Your task to perform on an android device: Go to Google Image 0: 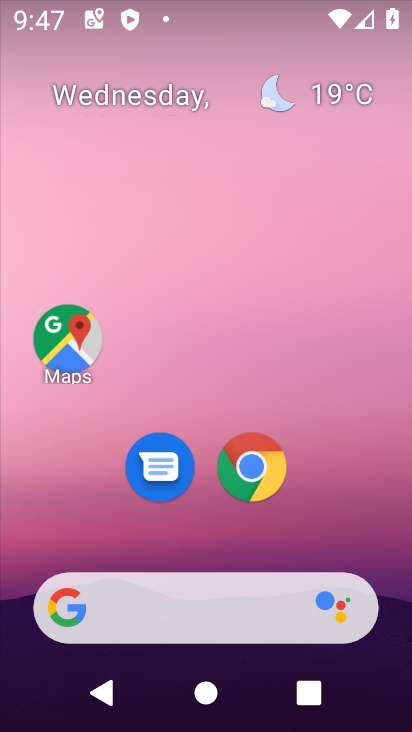
Step 0: drag from (355, 538) to (234, 30)
Your task to perform on an android device: Go to Google Image 1: 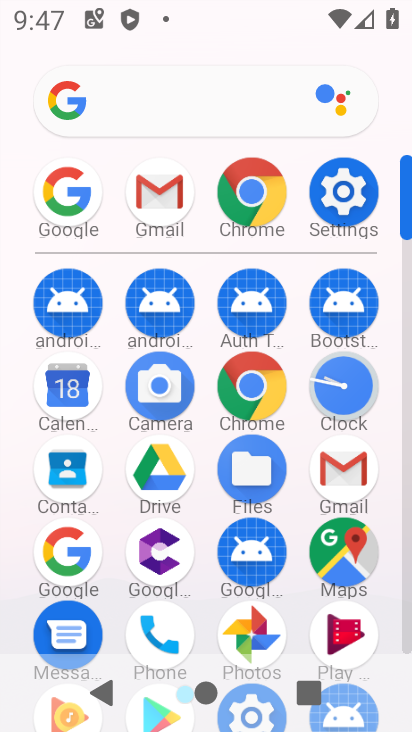
Step 1: click (75, 555)
Your task to perform on an android device: Go to Google Image 2: 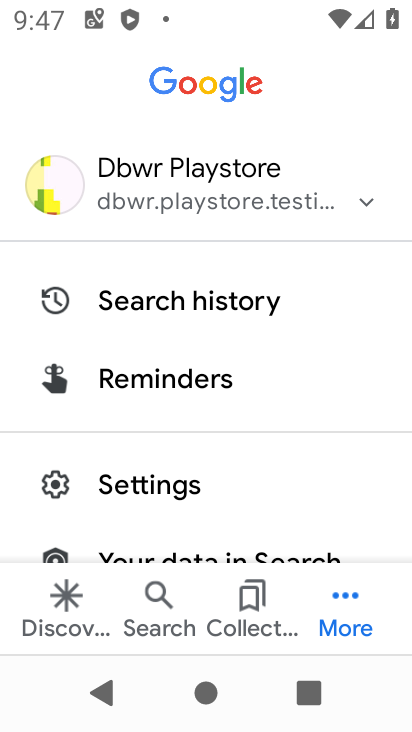
Step 2: task complete